Your task to perform on an android device: turn on wifi Image 0: 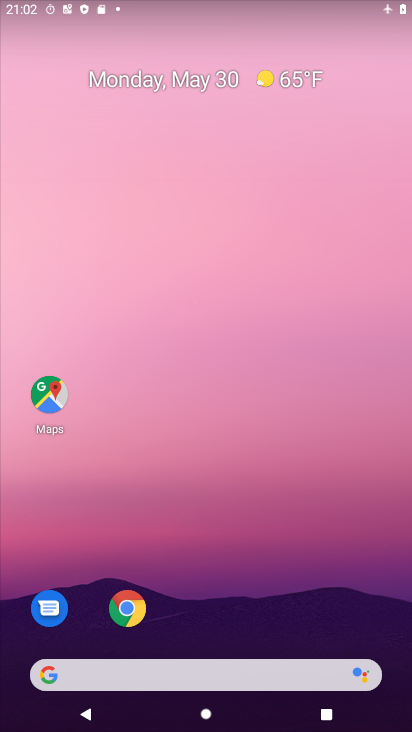
Step 0: drag from (239, 628) to (229, 219)
Your task to perform on an android device: turn on wifi Image 1: 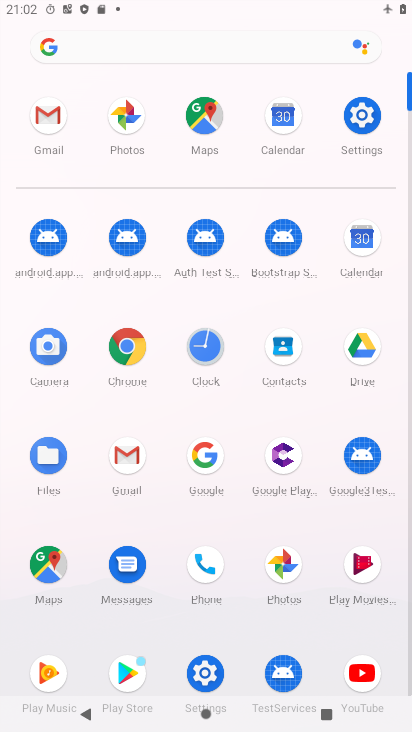
Step 1: click (354, 108)
Your task to perform on an android device: turn on wifi Image 2: 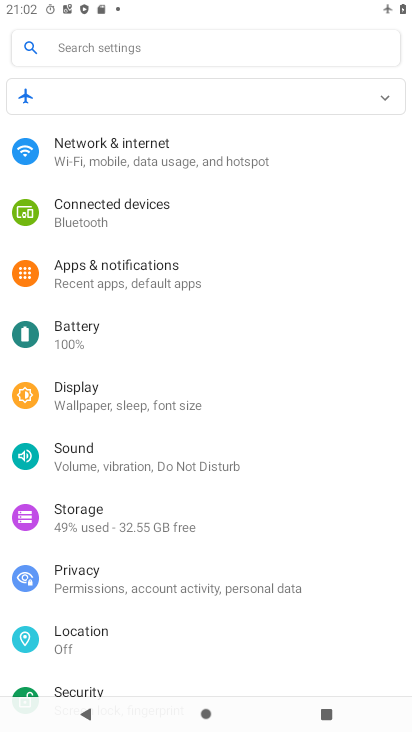
Step 2: click (203, 158)
Your task to perform on an android device: turn on wifi Image 3: 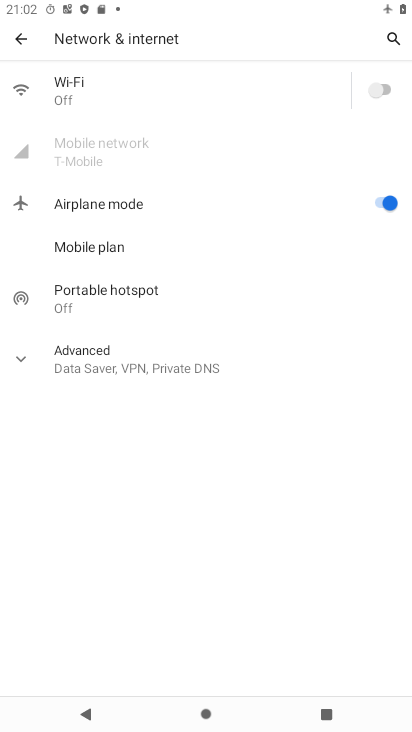
Step 3: click (383, 91)
Your task to perform on an android device: turn on wifi Image 4: 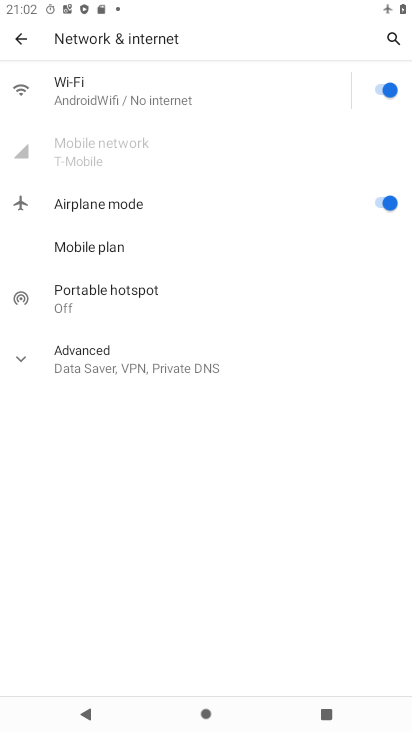
Step 4: task complete